Your task to perform on an android device: Set the phone to "Do not disturb". Image 0: 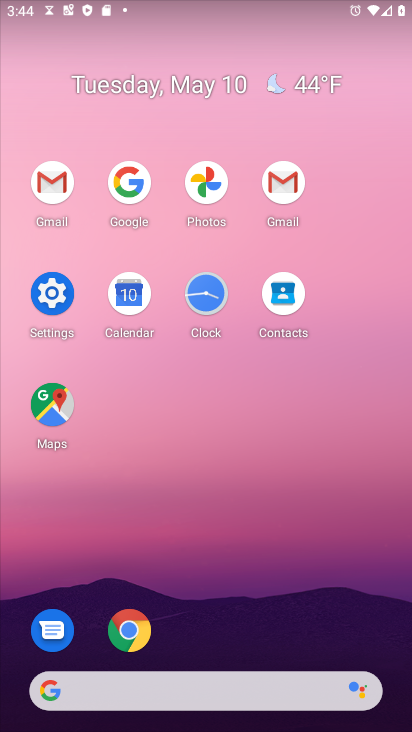
Step 0: click (57, 293)
Your task to perform on an android device: Set the phone to "Do not disturb". Image 1: 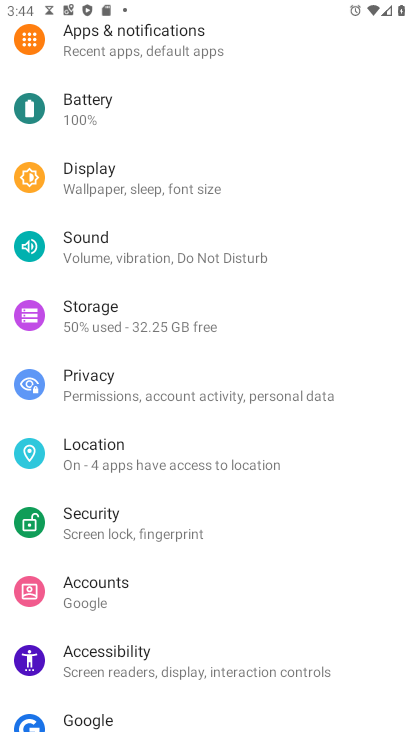
Step 1: click (212, 272)
Your task to perform on an android device: Set the phone to "Do not disturb". Image 2: 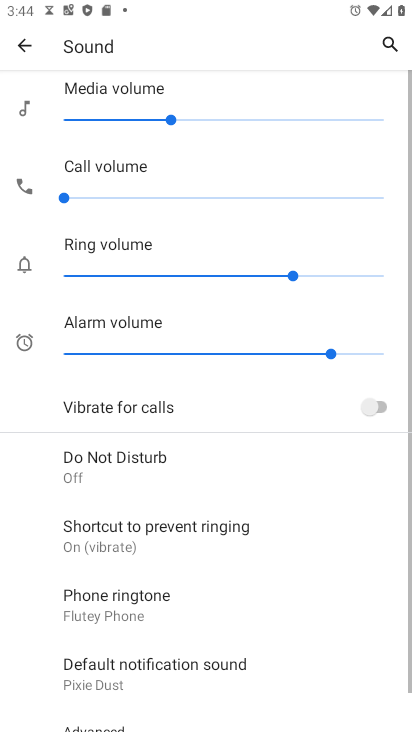
Step 2: drag from (234, 629) to (218, 277)
Your task to perform on an android device: Set the phone to "Do not disturb". Image 3: 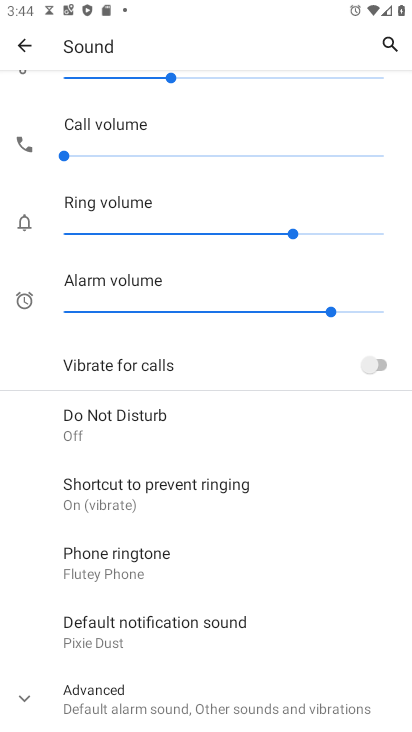
Step 3: click (139, 691)
Your task to perform on an android device: Set the phone to "Do not disturb". Image 4: 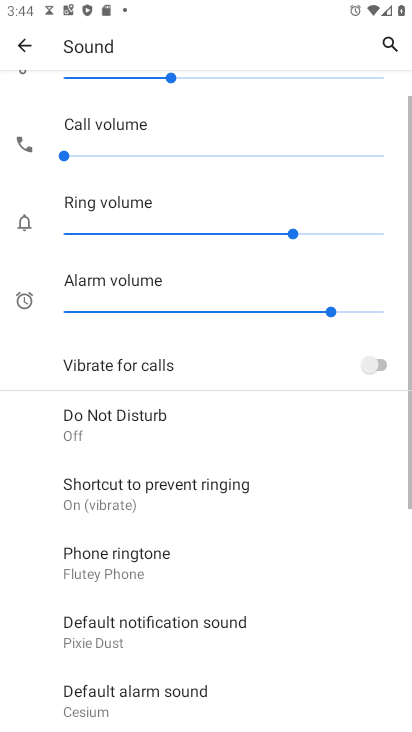
Step 4: drag from (175, 602) to (252, 195)
Your task to perform on an android device: Set the phone to "Do not disturb". Image 5: 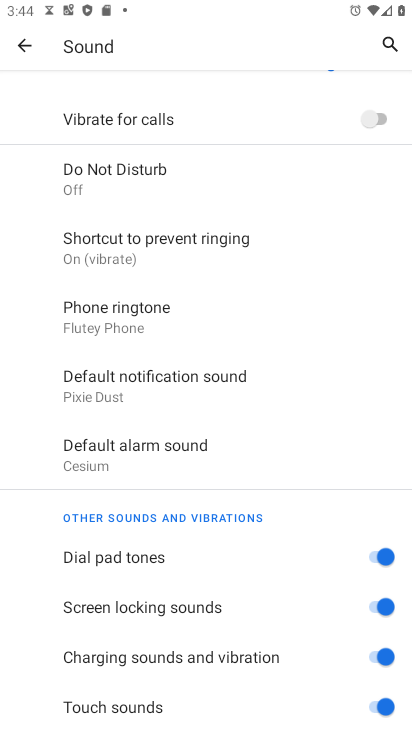
Step 5: click (126, 180)
Your task to perform on an android device: Set the phone to "Do not disturb". Image 6: 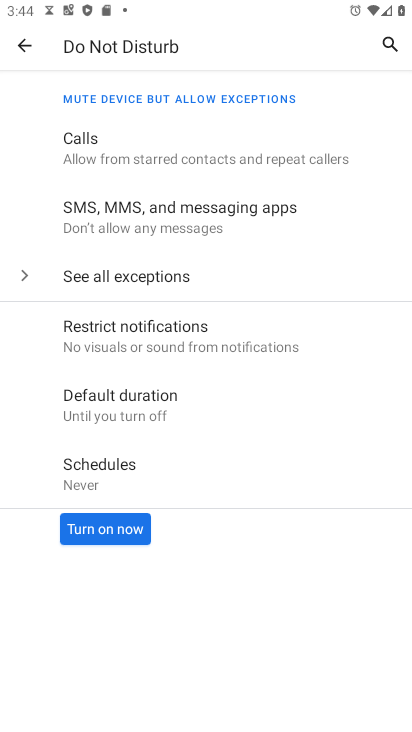
Step 6: click (141, 519)
Your task to perform on an android device: Set the phone to "Do not disturb". Image 7: 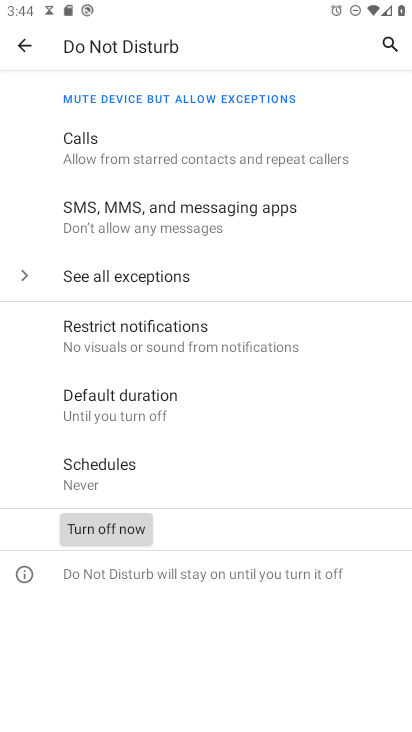
Step 7: task complete